Your task to perform on an android device: turn off airplane mode Image 0: 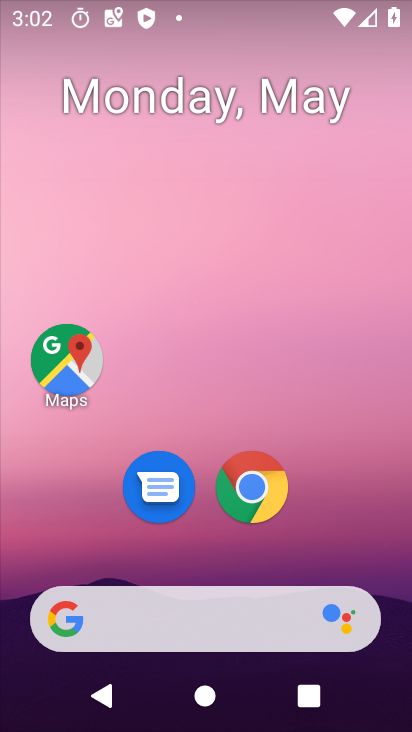
Step 0: drag from (228, 456) to (326, 99)
Your task to perform on an android device: turn off airplane mode Image 1: 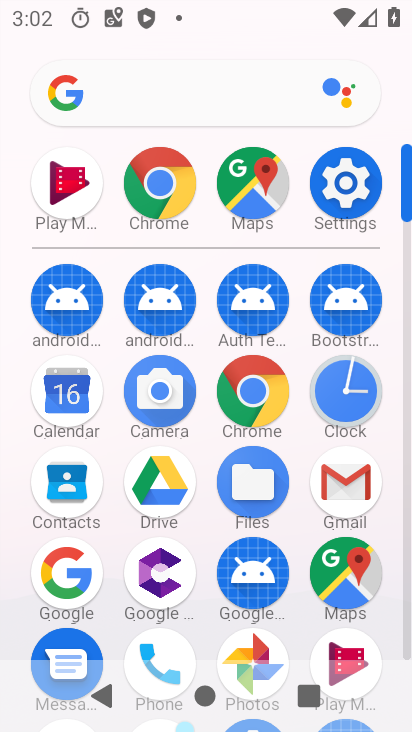
Step 1: click (354, 213)
Your task to perform on an android device: turn off airplane mode Image 2: 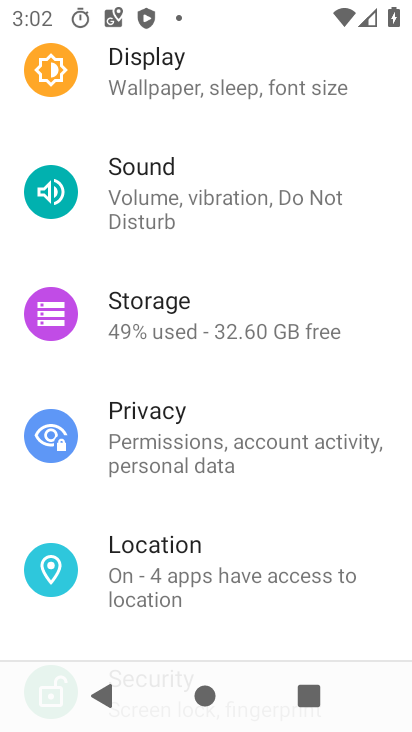
Step 2: drag from (218, 250) to (172, 716)
Your task to perform on an android device: turn off airplane mode Image 3: 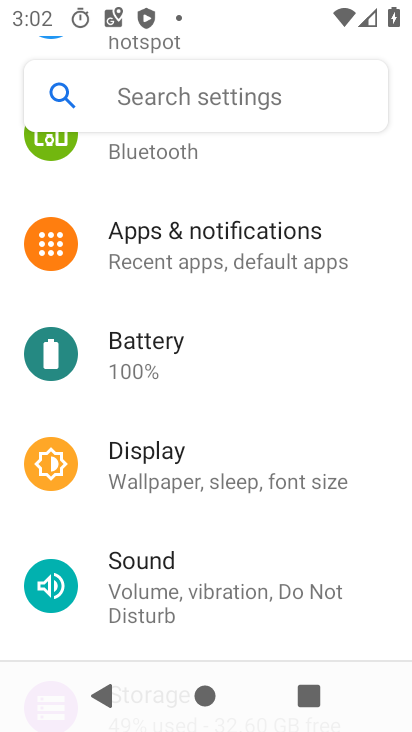
Step 3: drag from (244, 323) to (217, 731)
Your task to perform on an android device: turn off airplane mode Image 4: 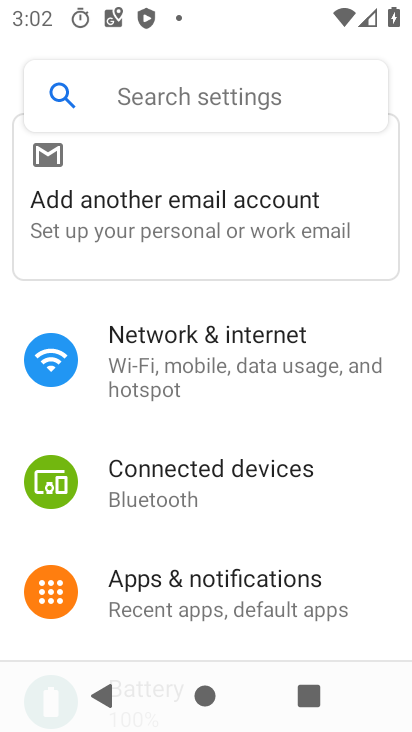
Step 4: click (202, 359)
Your task to perform on an android device: turn off airplane mode Image 5: 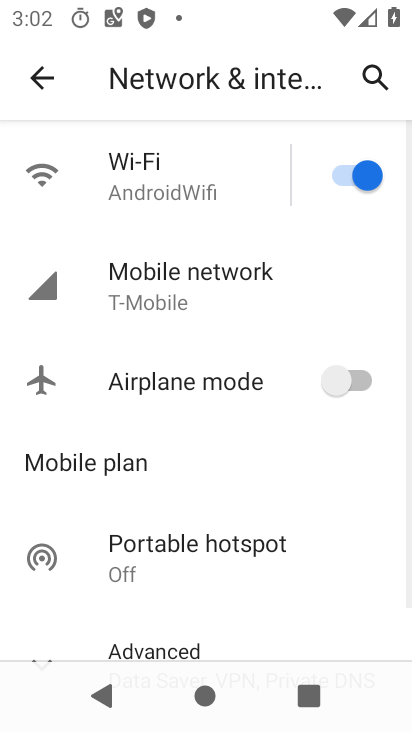
Step 5: task complete